Your task to perform on an android device: Show me recent news Image 0: 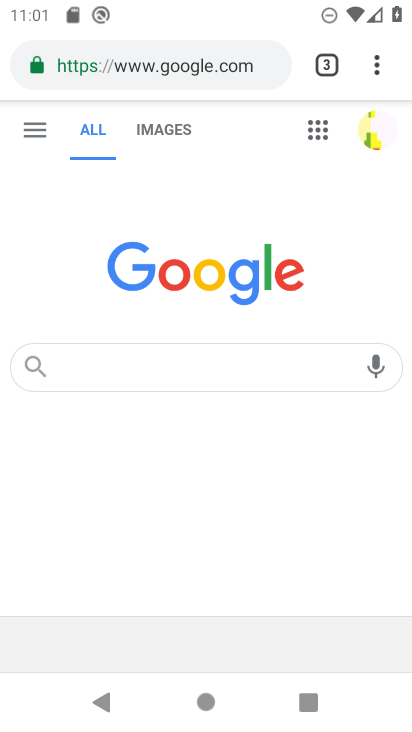
Step 0: press home button
Your task to perform on an android device: Show me recent news Image 1: 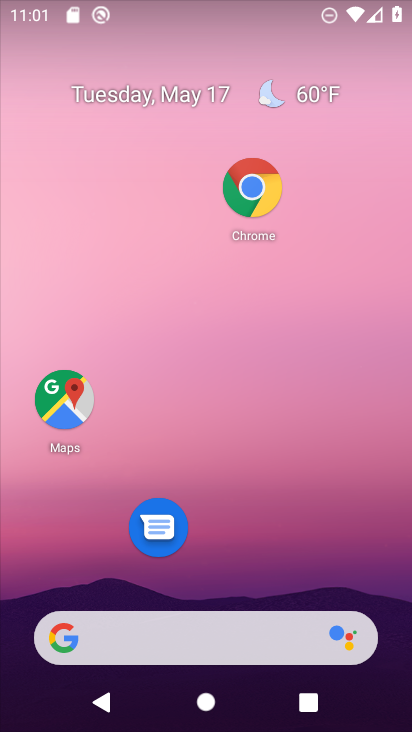
Step 1: click (205, 634)
Your task to perform on an android device: Show me recent news Image 2: 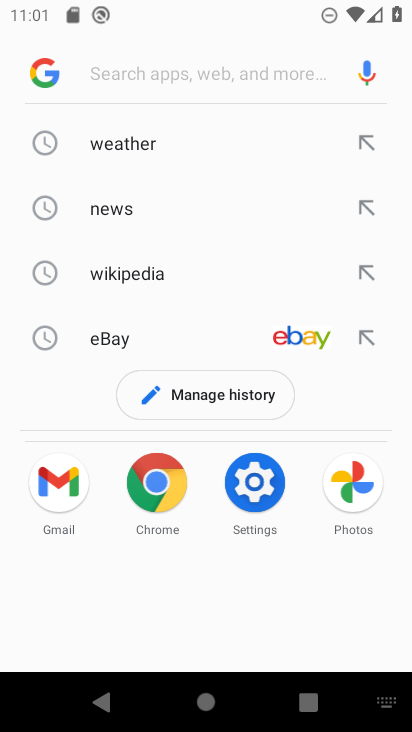
Step 2: click (192, 205)
Your task to perform on an android device: Show me recent news Image 3: 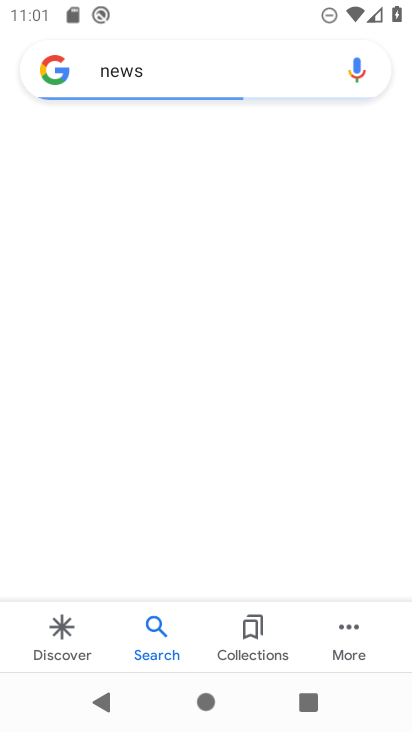
Step 3: task complete